Your task to perform on an android device: Show me popular games on the Play Store Image 0: 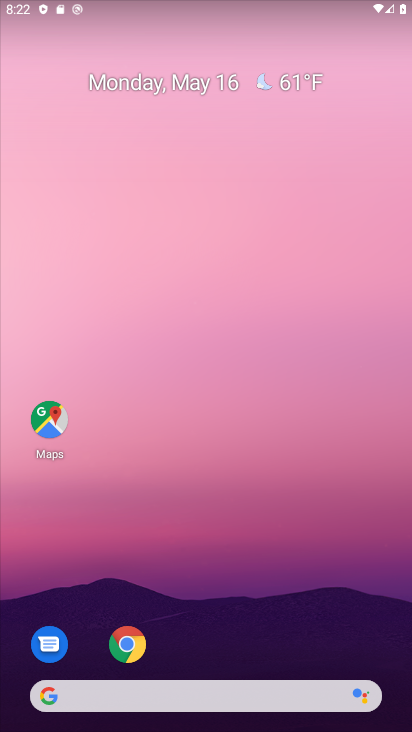
Step 0: drag from (219, 630) to (180, 121)
Your task to perform on an android device: Show me popular games on the Play Store Image 1: 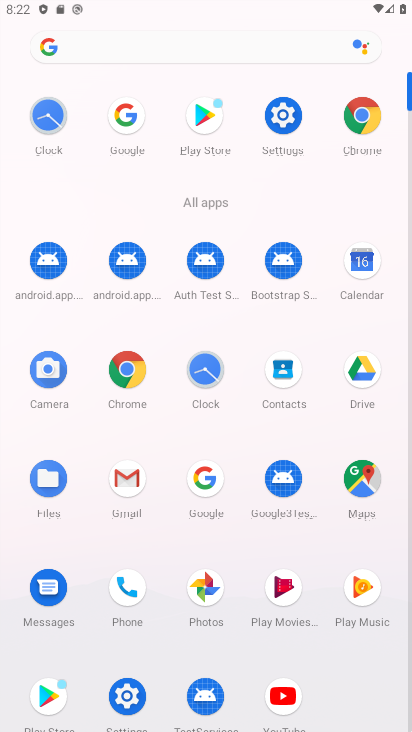
Step 1: click (47, 690)
Your task to perform on an android device: Show me popular games on the Play Store Image 2: 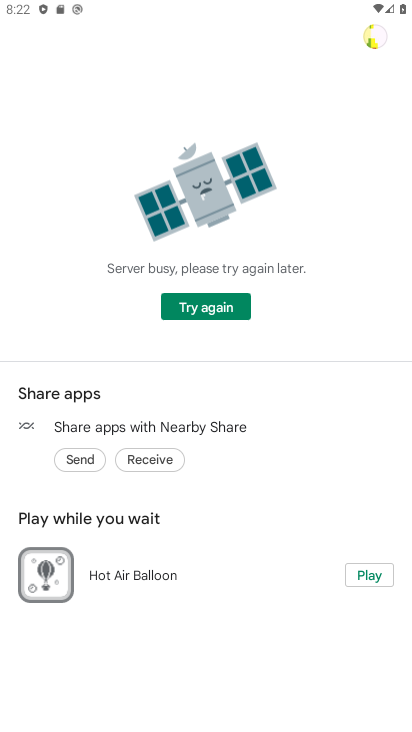
Step 2: click (200, 311)
Your task to perform on an android device: Show me popular games on the Play Store Image 3: 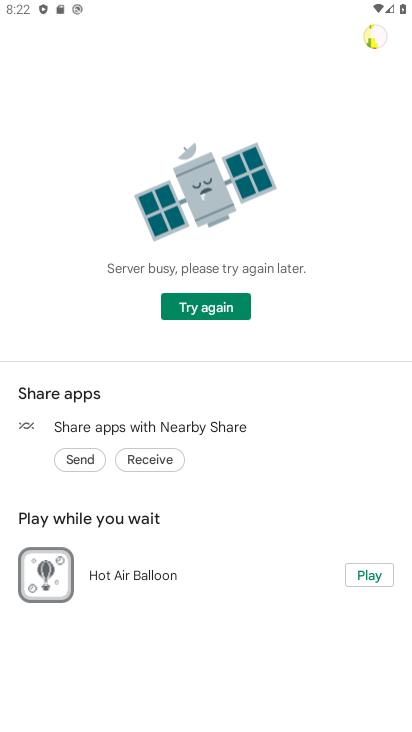
Step 3: task complete